Your task to perform on an android device: Go to location settings Image 0: 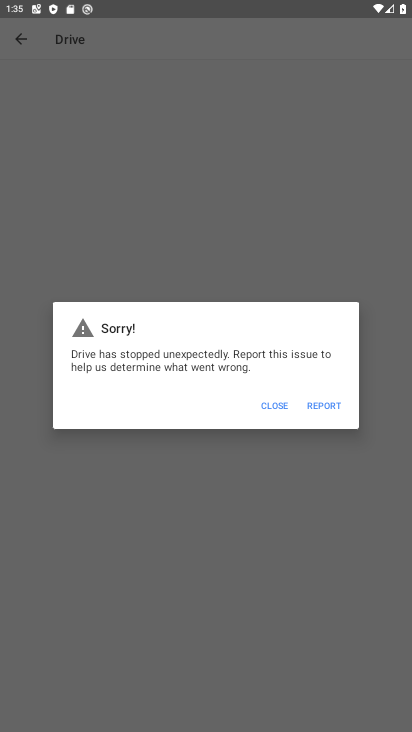
Step 0: press home button
Your task to perform on an android device: Go to location settings Image 1: 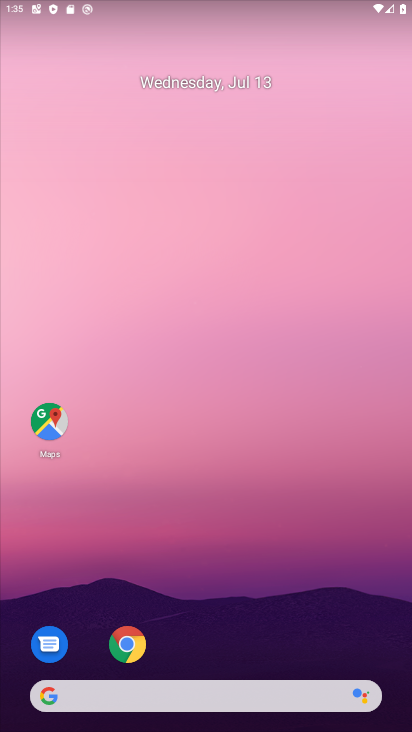
Step 1: drag from (295, 591) to (282, 68)
Your task to perform on an android device: Go to location settings Image 2: 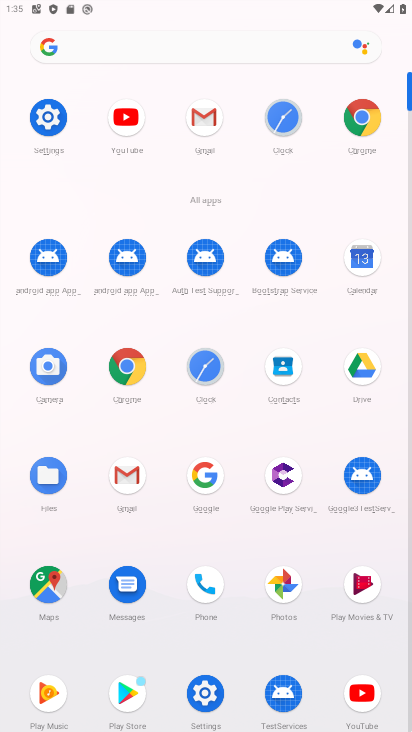
Step 2: click (45, 120)
Your task to perform on an android device: Go to location settings Image 3: 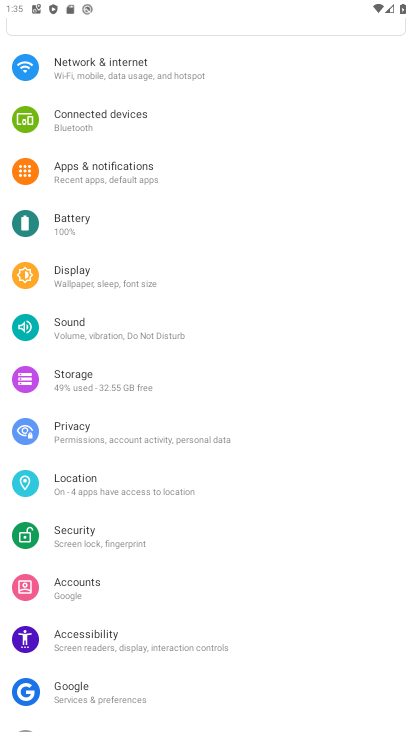
Step 3: click (105, 482)
Your task to perform on an android device: Go to location settings Image 4: 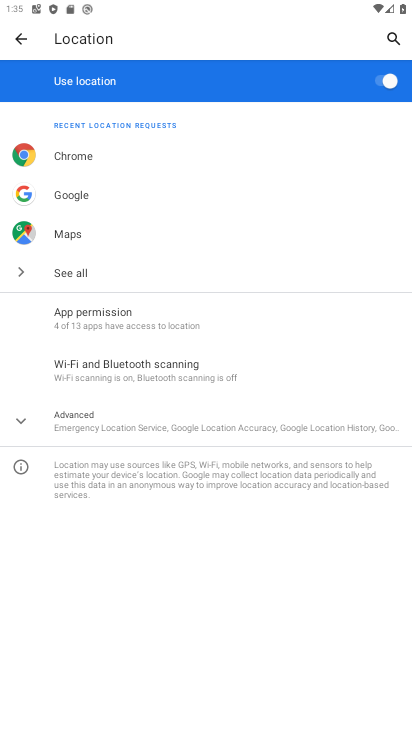
Step 4: task complete